Your task to perform on an android device: open the mobile data screen to see how much data has been used Image 0: 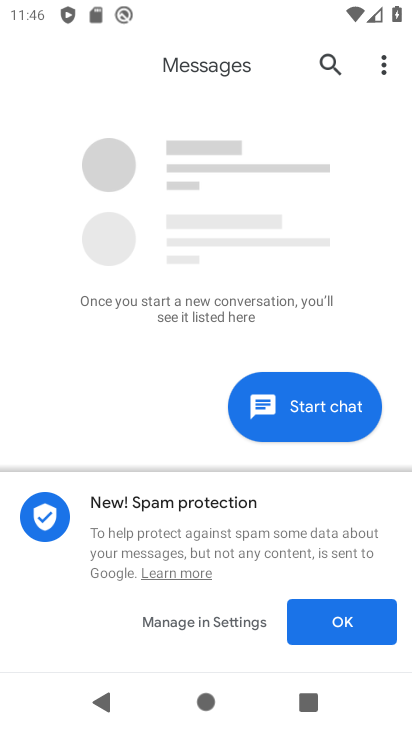
Step 0: press back button
Your task to perform on an android device: open the mobile data screen to see how much data has been used Image 1: 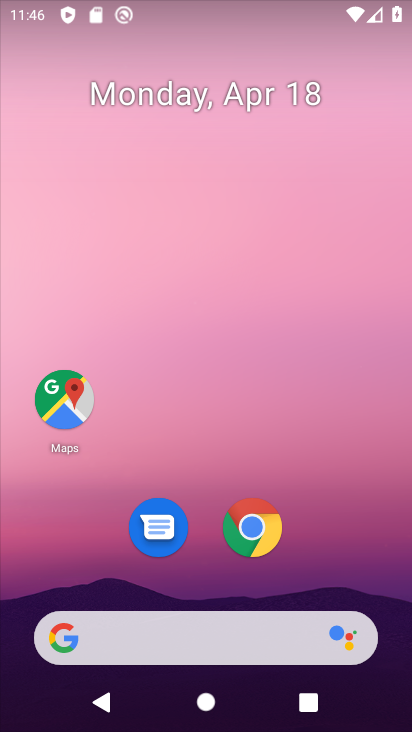
Step 1: drag from (340, 552) to (338, 167)
Your task to perform on an android device: open the mobile data screen to see how much data has been used Image 2: 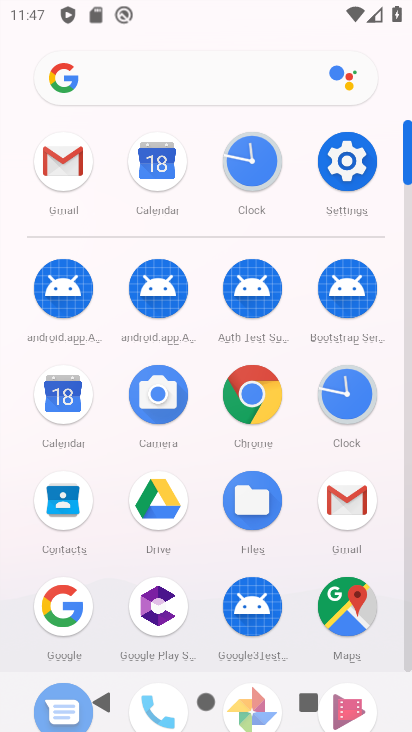
Step 2: click (350, 169)
Your task to perform on an android device: open the mobile data screen to see how much data has been used Image 3: 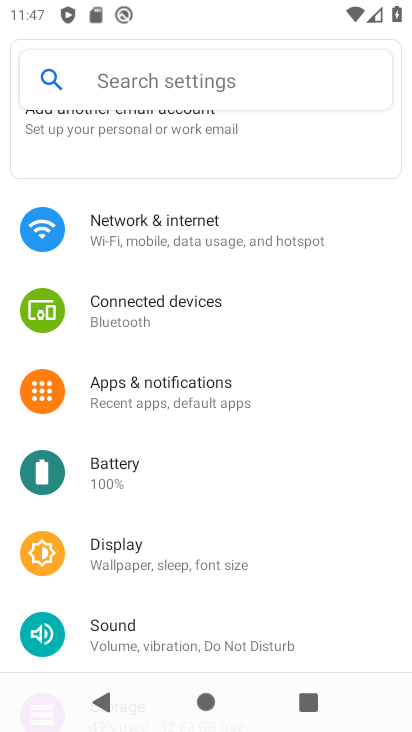
Step 3: click (239, 234)
Your task to perform on an android device: open the mobile data screen to see how much data has been used Image 4: 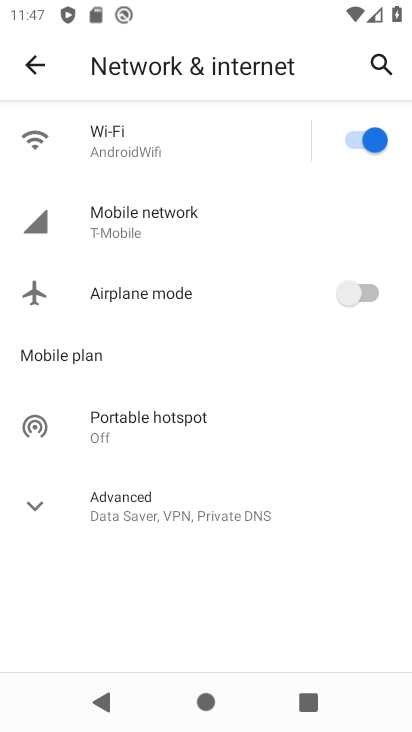
Step 4: click (238, 234)
Your task to perform on an android device: open the mobile data screen to see how much data has been used Image 5: 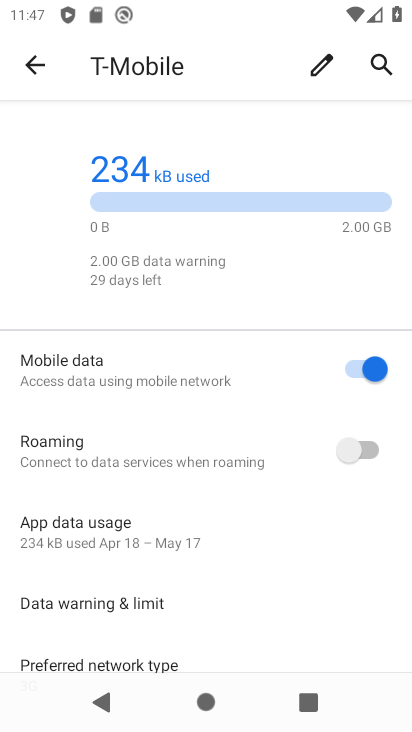
Step 5: click (196, 525)
Your task to perform on an android device: open the mobile data screen to see how much data has been used Image 6: 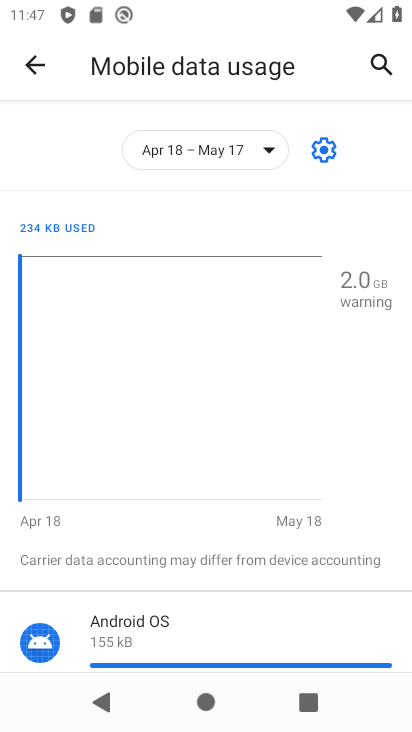
Step 6: task complete